Your task to perform on an android device: Go to Wikipedia Image 0: 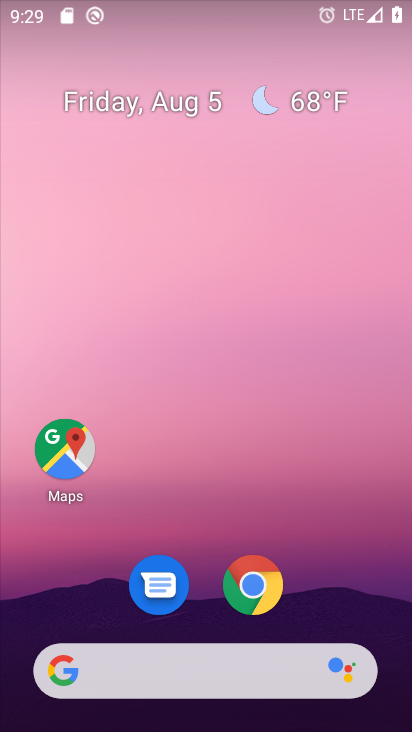
Step 0: drag from (217, 483) to (221, 3)
Your task to perform on an android device: Go to Wikipedia Image 1: 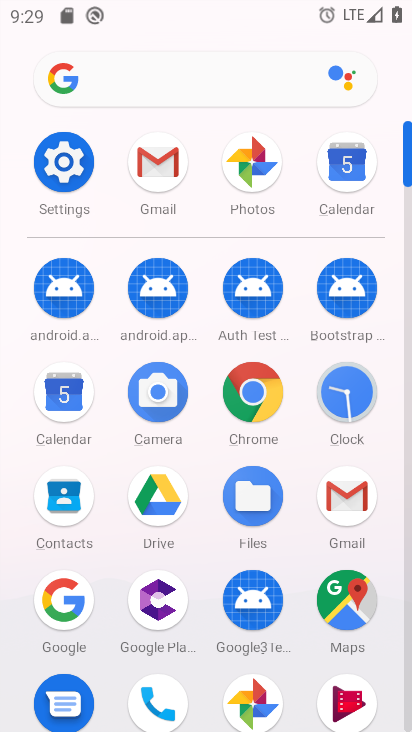
Step 1: click (268, 405)
Your task to perform on an android device: Go to Wikipedia Image 2: 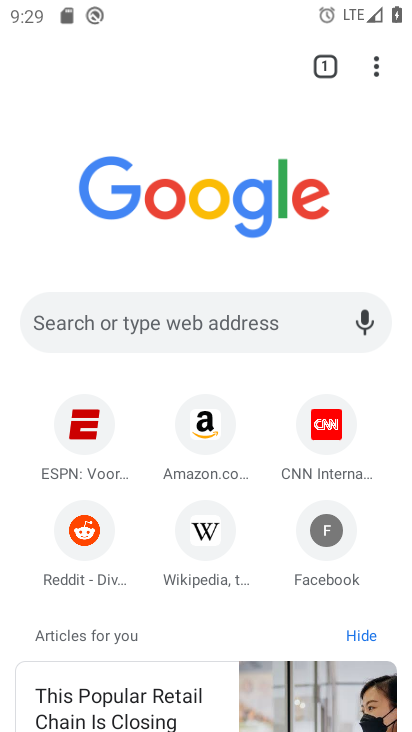
Step 2: click (206, 516)
Your task to perform on an android device: Go to Wikipedia Image 3: 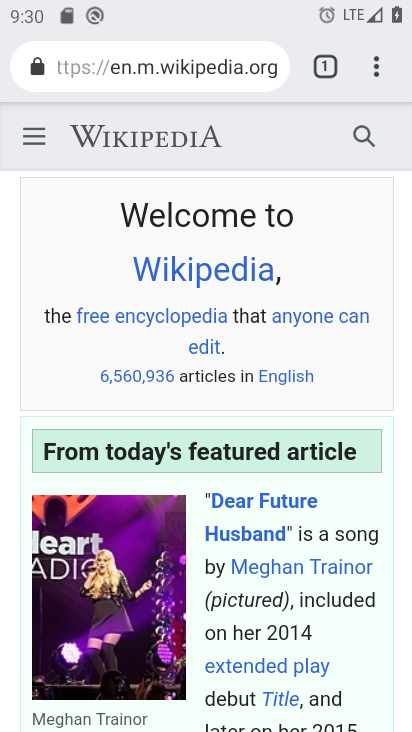
Step 3: task complete